Your task to perform on an android device: Toggle the flashlight Image 0: 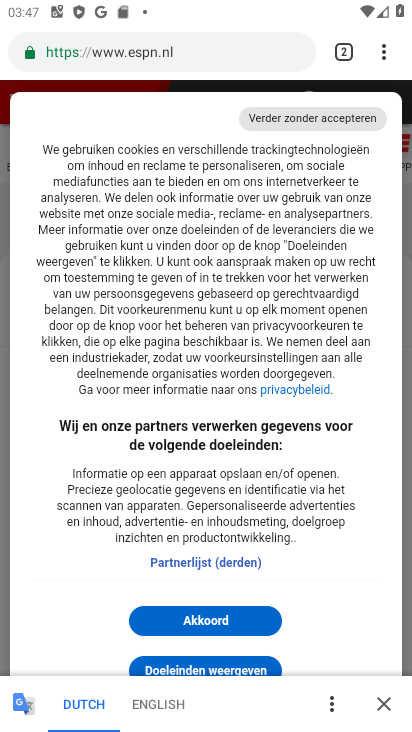
Step 0: press home button
Your task to perform on an android device: Toggle the flashlight Image 1: 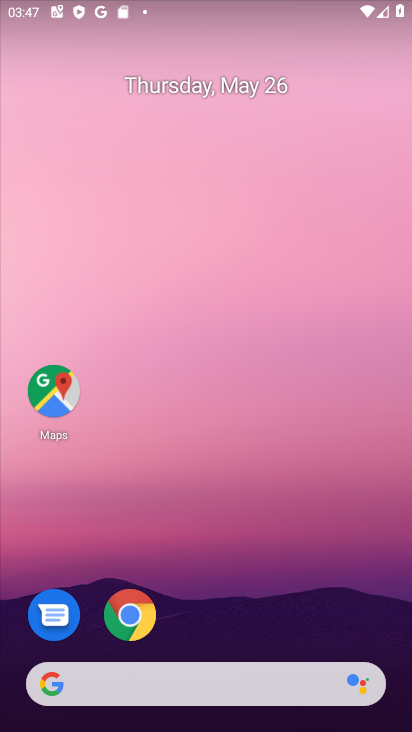
Step 1: task complete